Your task to perform on an android device: refresh tabs in the chrome app Image 0: 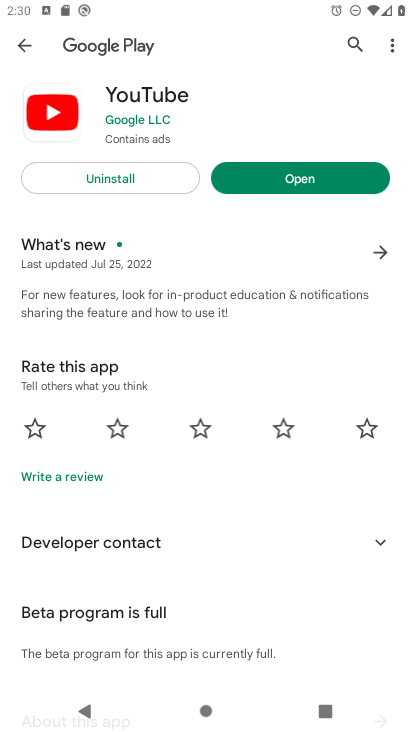
Step 0: press home button
Your task to perform on an android device: refresh tabs in the chrome app Image 1: 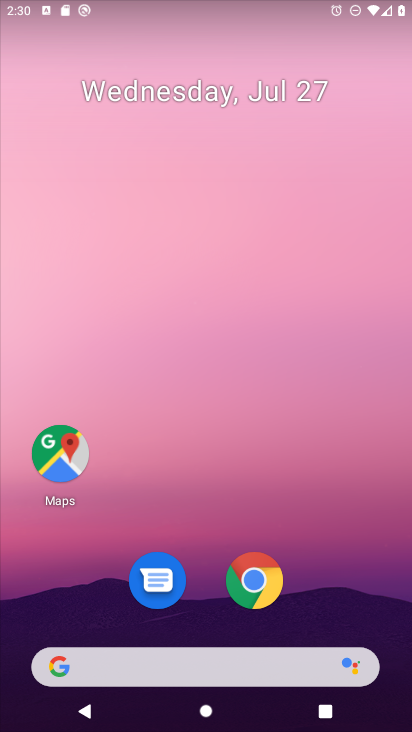
Step 1: click (255, 559)
Your task to perform on an android device: refresh tabs in the chrome app Image 2: 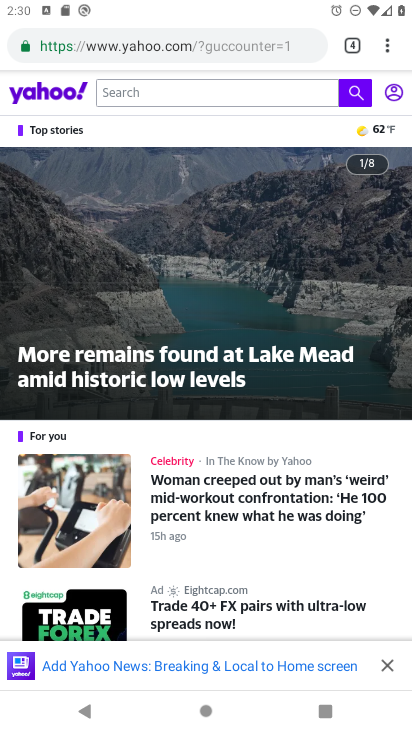
Step 2: click (390, 53)
Your task to perform on an android device: refresh tabs in the chrome app Image 3: 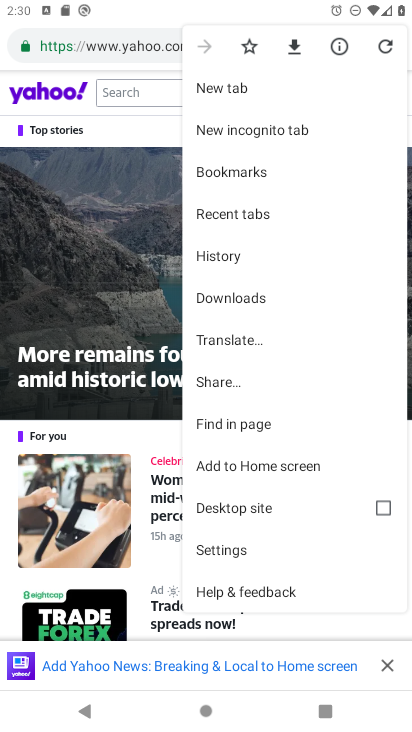
Step 3: click (383, 45)
Your task to perform on an android device: refresh tabs in the chrome app Image 4: 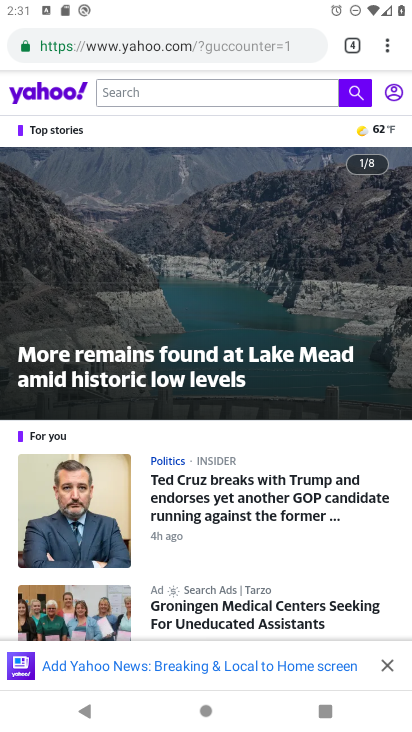
Step 4: task complete